Your task to perform on an android device: Open wifi settings Image 0: 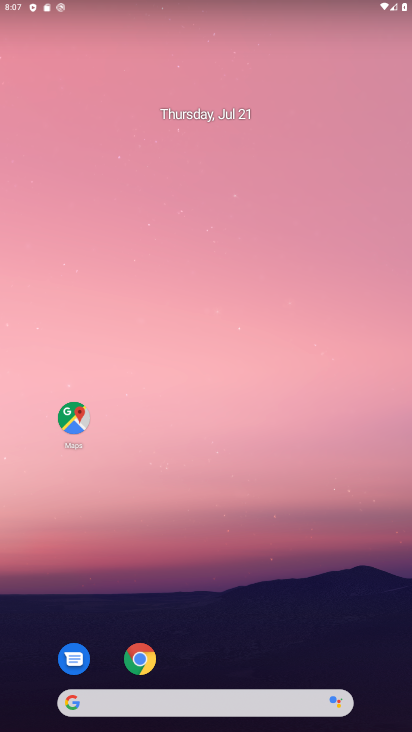
Step 0: press home button
Your task to perform on an android device: Open wifi settings Image 1: 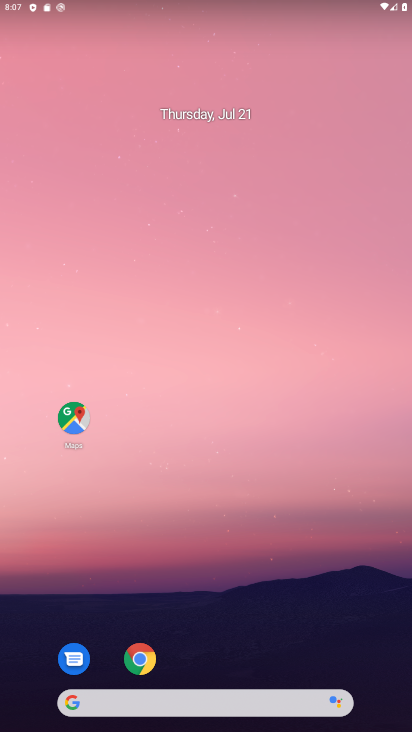
Step 1: drag from (226, 661) to (262, 34)
Your task to perform on an android device: Open wifi settings Image 2: 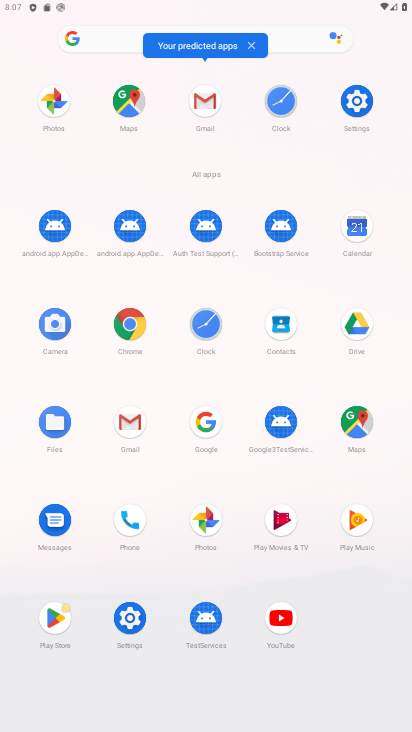
Step 2: click (354, 100)
Your task to perform on an android device: Open wifi settings Image 3: 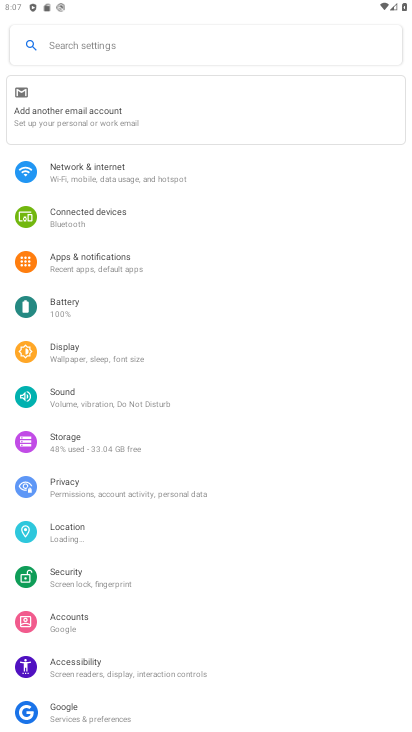
Step 3: click (129, 169)
Your task to perform on an android device: Open wifi settings Image 4: 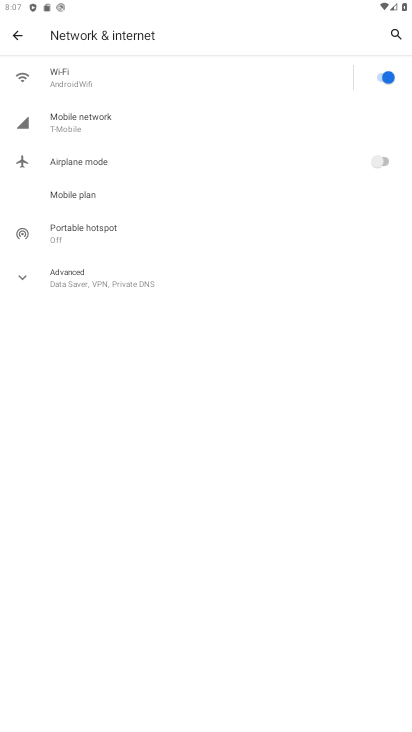
Step 4: click (113, 73)
Your task to perform on an android device: Open wifi settings Image 5: 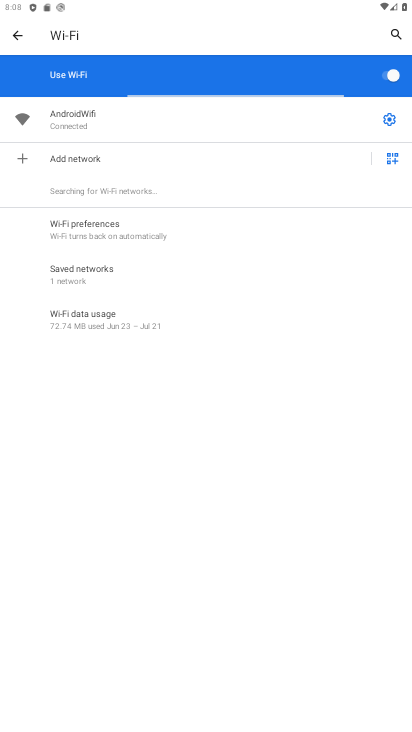
Step 5: task complete